Your task to perform on an android device: Show me recent news Image 0: 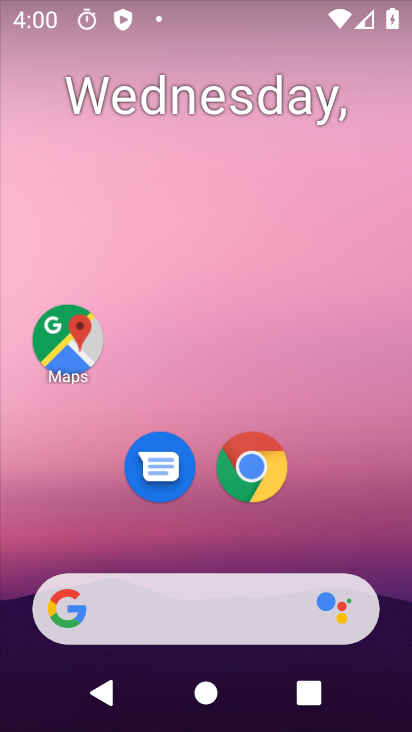
Step 0: drag from (207, 42) to (110, 1)
Your task to perform on an android device: Show me recent news Image 1: 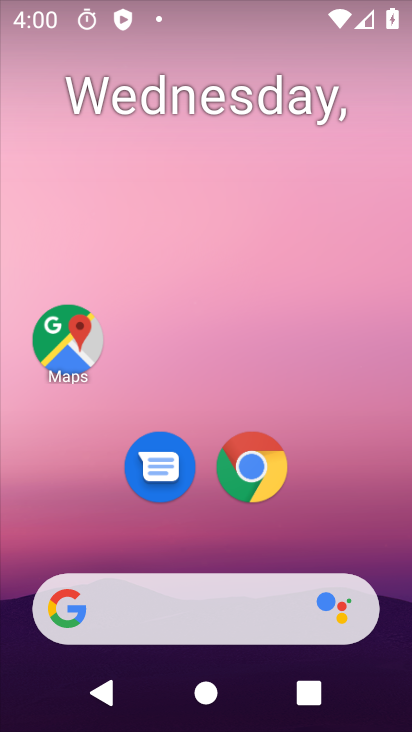
Step 1: drag from (210, 527) to (209, 9)
Your task to perform on an android device: Show me recent news Image 2: 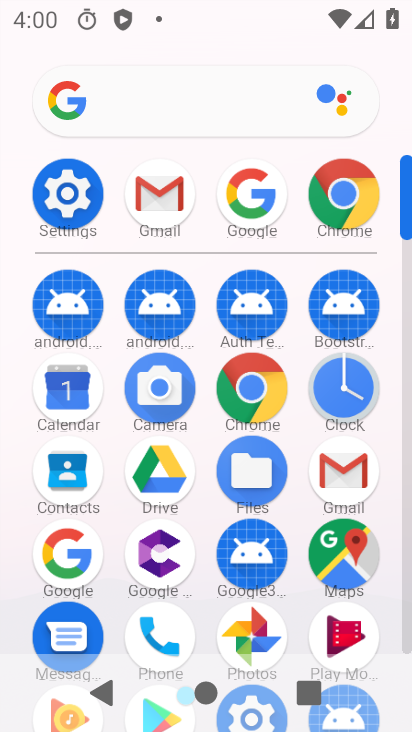
Step 2: click (70, 554)
Your task to perform on an android device: Show me recent news Image 3: 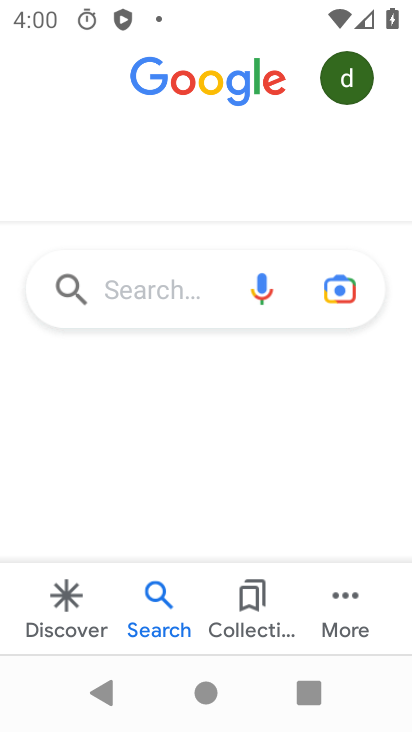
Step 3: click (157, 290)
Your task to perform on an android device: Show me recent news Image 4: 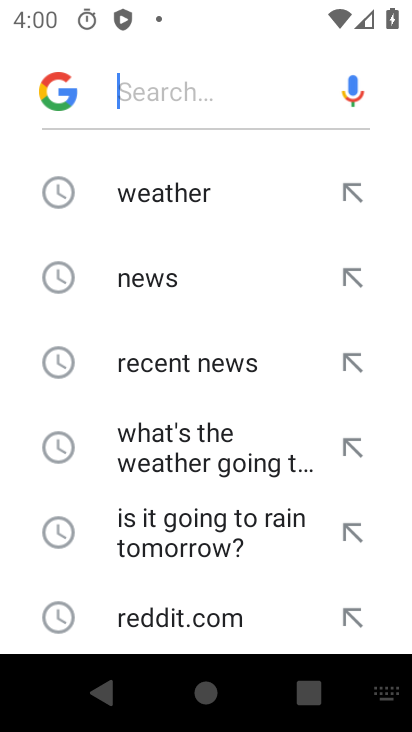
Step 4: click (191, 362)
Your task to perform on an android device: Show me recent news Image 5: 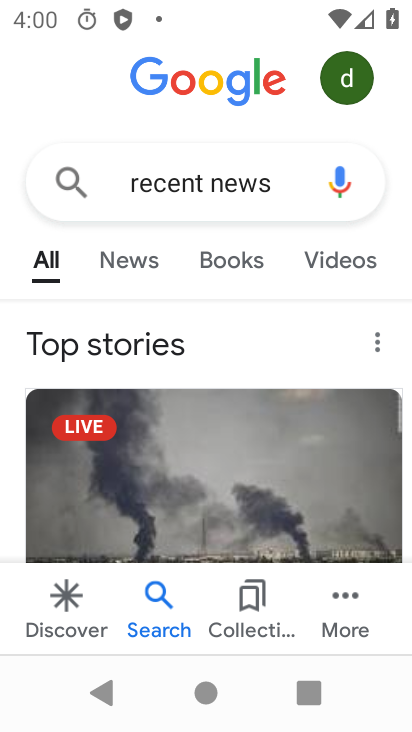
Step 5: task complete